Your task to perform on an android device: What's on my calendar today? Image 0: 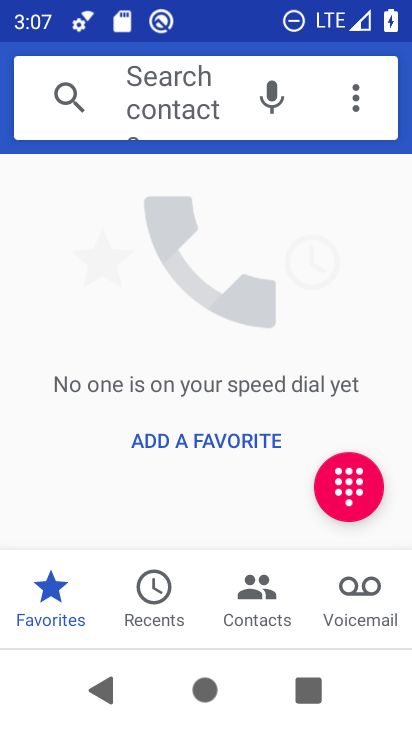
Step 0: press home button
Your task to perform on an android device: What's on my calendar today? Image 1: 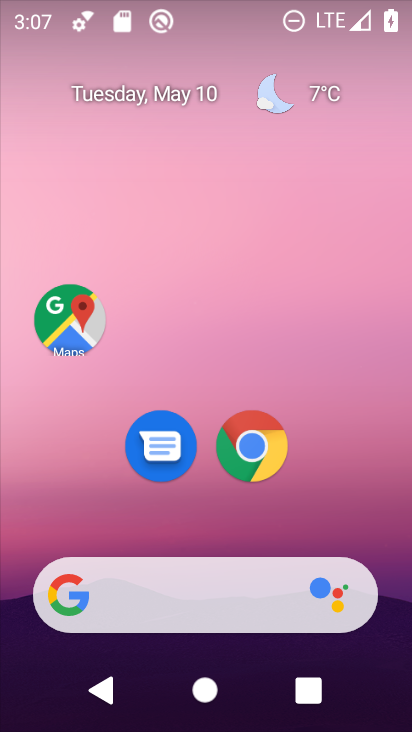
Step 1: drag from (231, 521) to (234, 108)
Your task to perform on an android device: What's on my calendar today? Image 2: 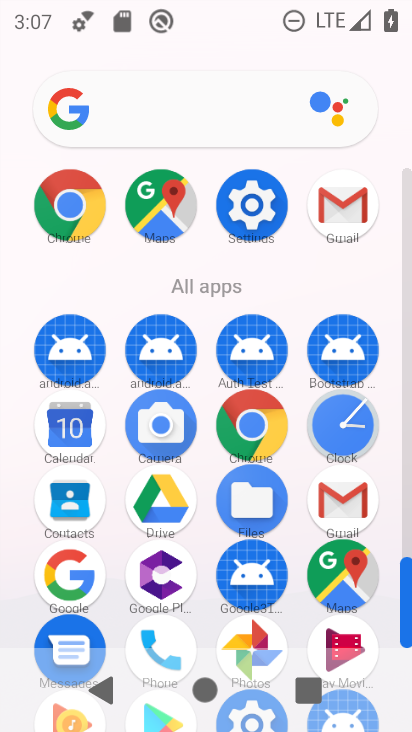
Step 2: click (67, 419)
Your task to perform on an android device: What's on my calendar today? Image 3: 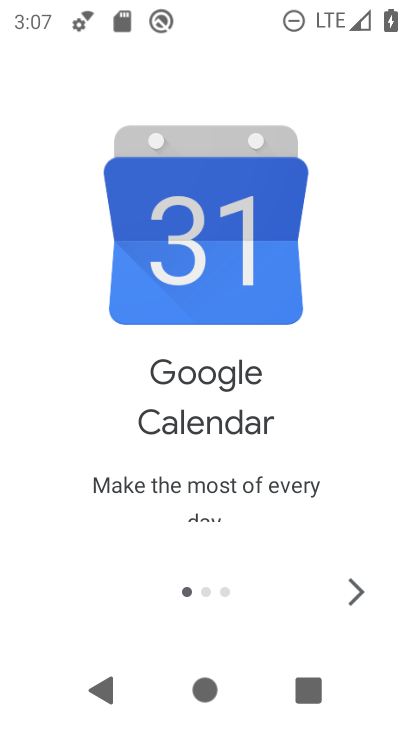
Step 3: click (356, 588)
Your task to perform on an android device: What's on my calendar today? Image 4: 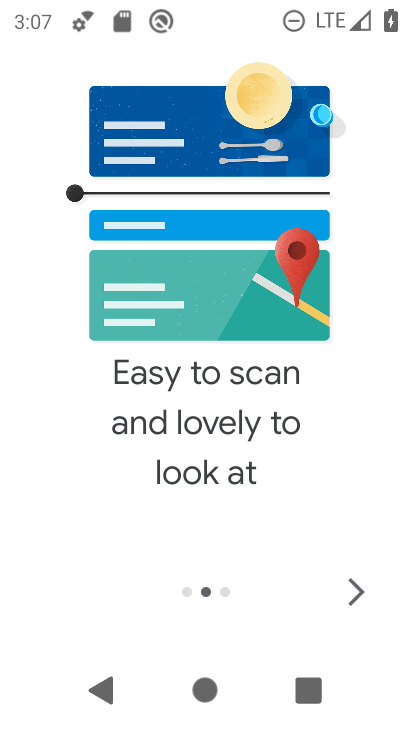
Step 4: click (354, 588)
Your task to perform on an android device: What's on my calendar today? Image 5: 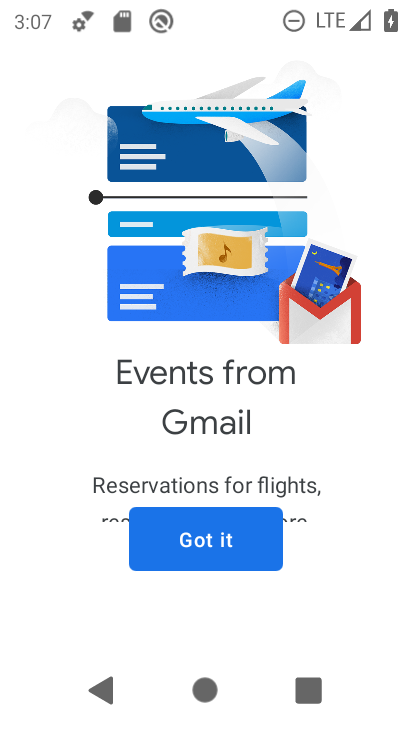
Step 5: click (216, 545)
Your task to perform on an android device: What's on my calendar today? Image 6: 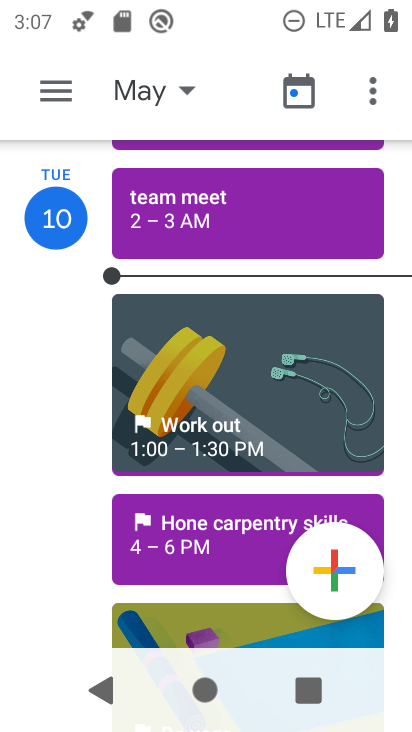
Step 6: task complete